Your task to perform on an android device: When is my next meeting? Image 0: 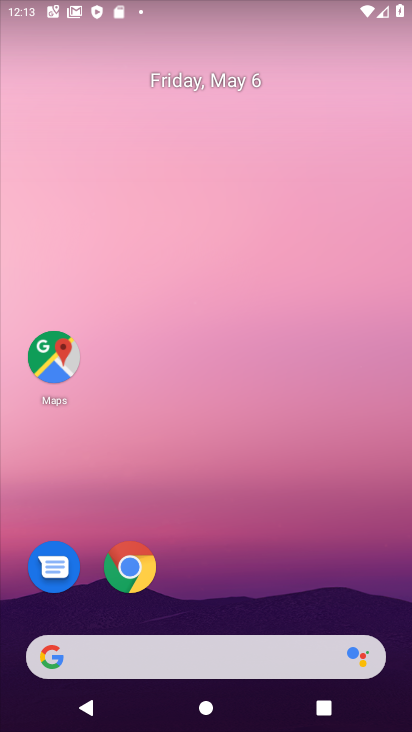
Step 0: drag from (228, 595) to (299, 41)
Your task to perform on an android device: When is my next meeting? Image 1: 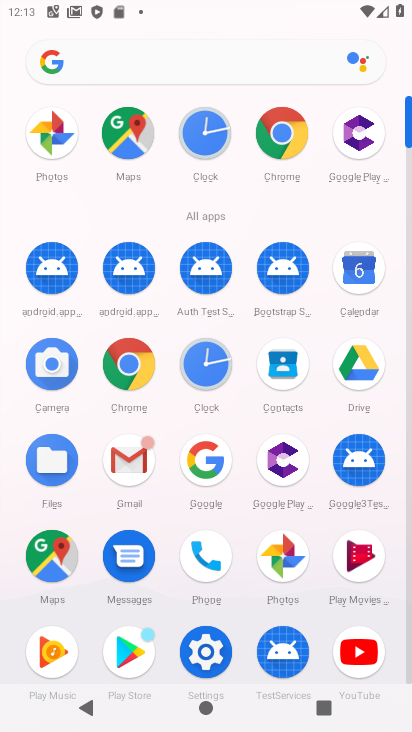
Step 1: click (364, 274)
Your task to perform on an android device: When is my next meeting? Image 2: 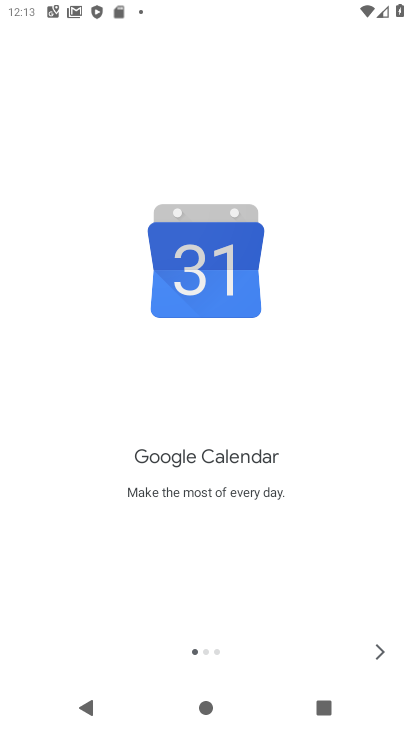
Step 2: click (380, 652)
Your task to perform on an android device: When is my next meeting? Image 3: 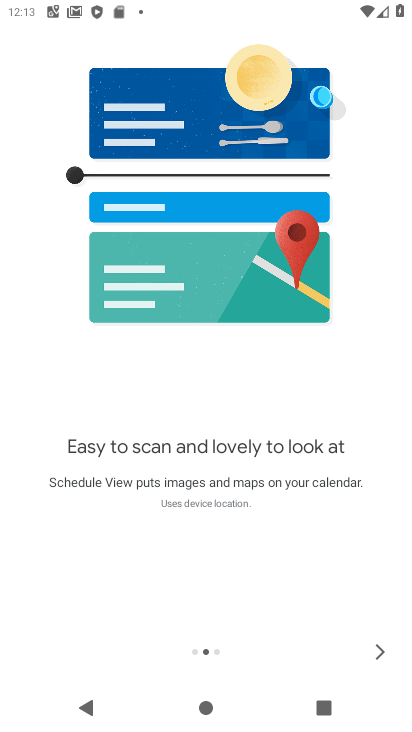
Step 3: click (380, 652)
Your task to perform on an android device: When is my next meeting? Image 4: 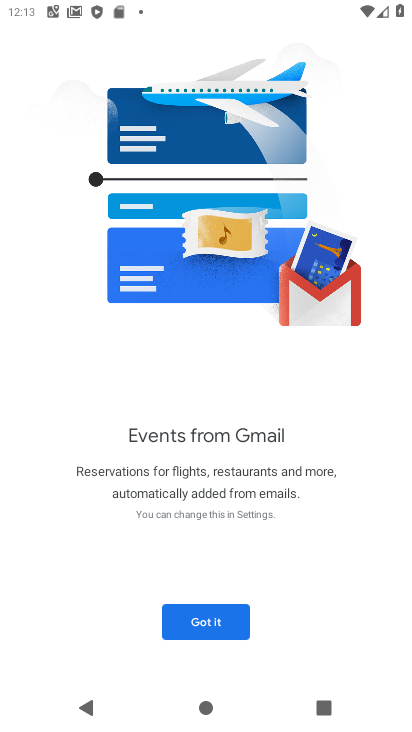
Step 4: click (203, 631)
Your task to perform on an android device: When is my next meeting? Image 5: 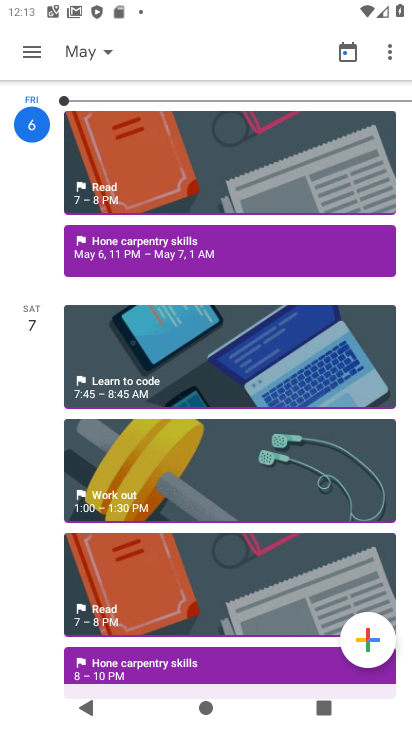
Step 5: click (106, 53)
Your task to perform on an android device: When is my next meeting? Image 6: 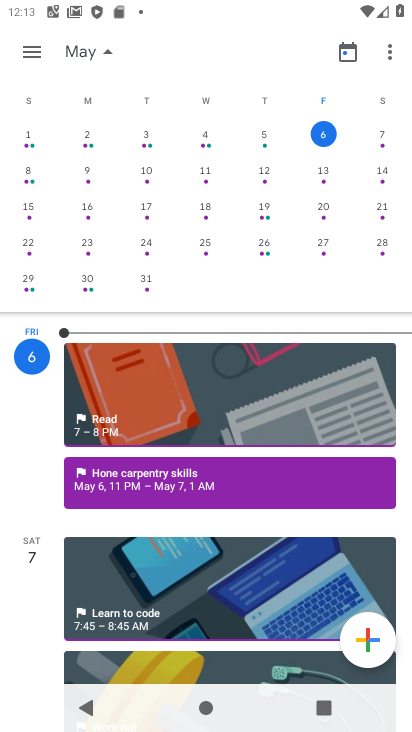
Step 6: click (383, 137)
Your task to perform on an android device: When is my next meeting? Image 7: 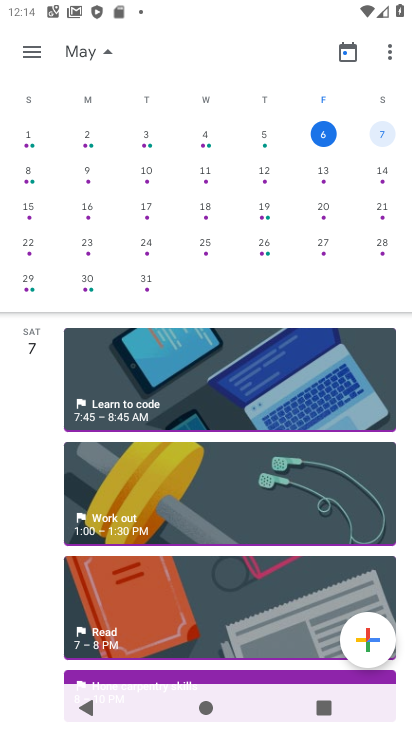
Step 7: task complete